Your task to perform on an android device: manage bookmarks in the chrome app Image 0: 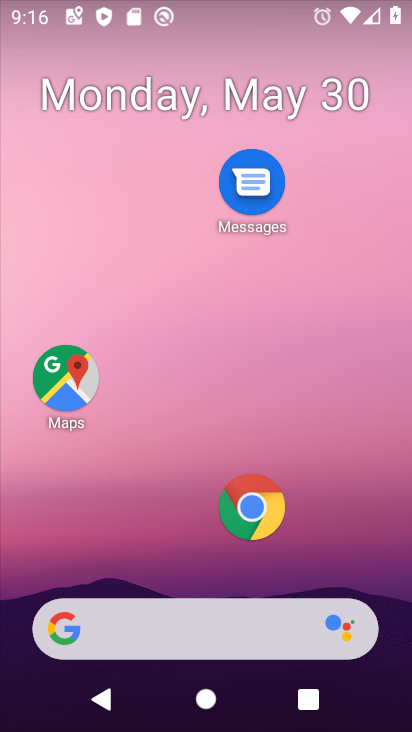
Step 0: click (253, 506)
Your task to perform on an android device: manage bookmarks in the chrome app Image 1: 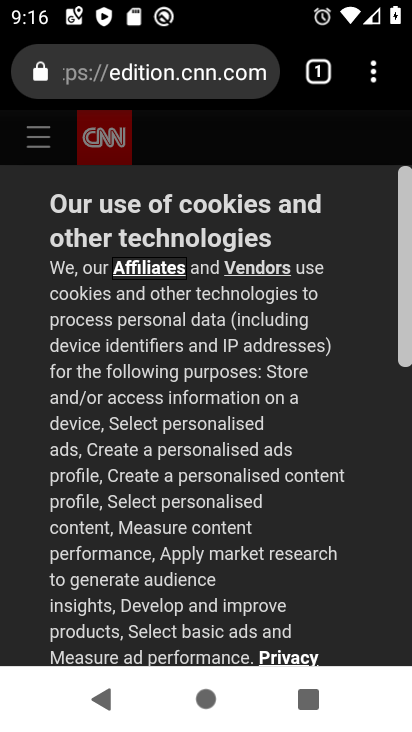
Step 1: click (379, 67)
Your task to perform on an android device: manage bookmarks in the chrome app Image 2: 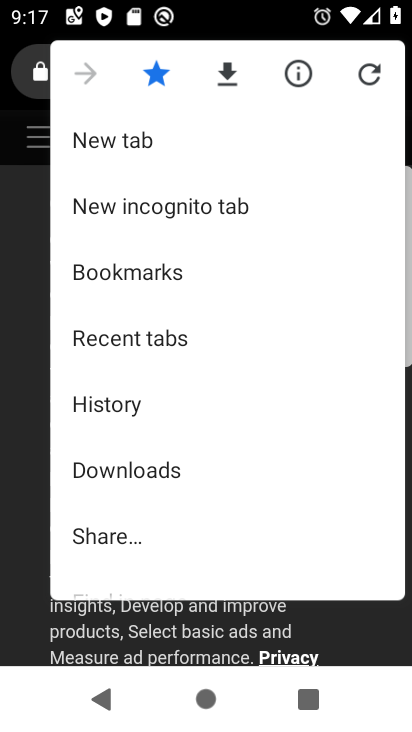
Step 2: click (155, 291)
Your task to perform on an android device: manage bookmarks in the chrome app Image 3: 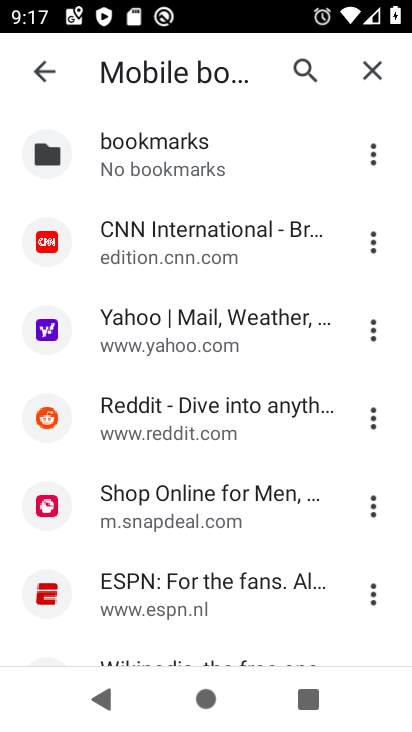
Step 3: click (379, 249)
Your task to perform on an android device: manage bookmarks in the chrome app Image 4: 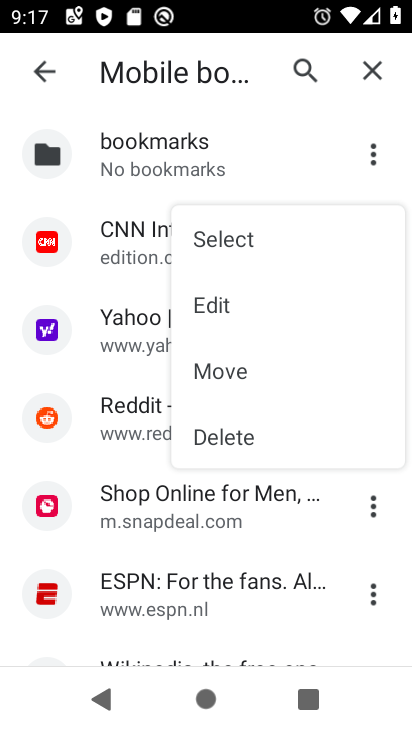
Step 4: click (237, 424)
Your task to perform on an android device: manage bookmarks in the chrome app Image 5: 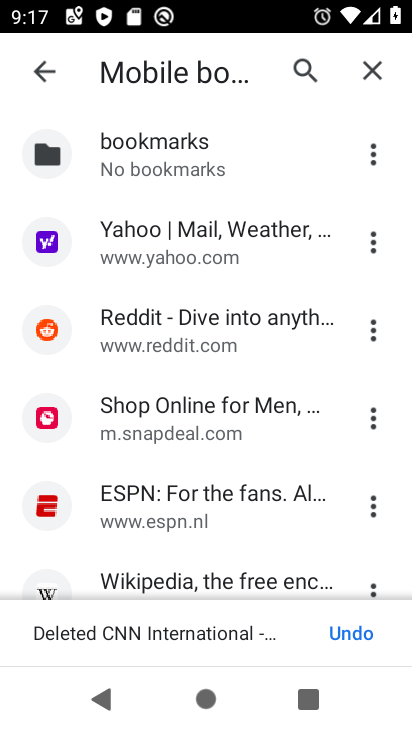
Step 5: task complete